Your task to perform on an android device: turn off location Image 0: 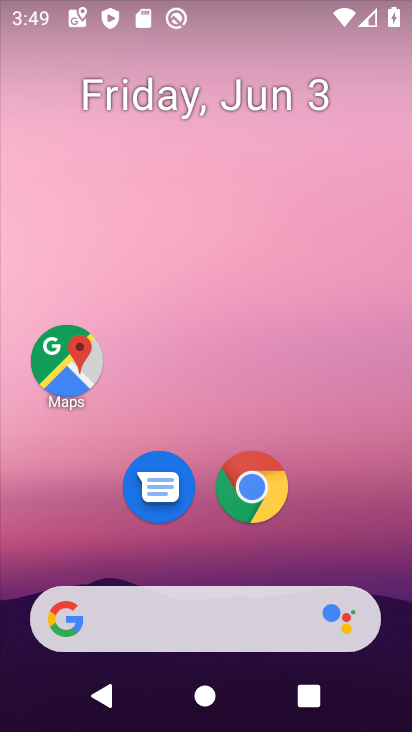
Step 0: click (390, 2)
Your task to perform on an android device: turn off location Image 1: 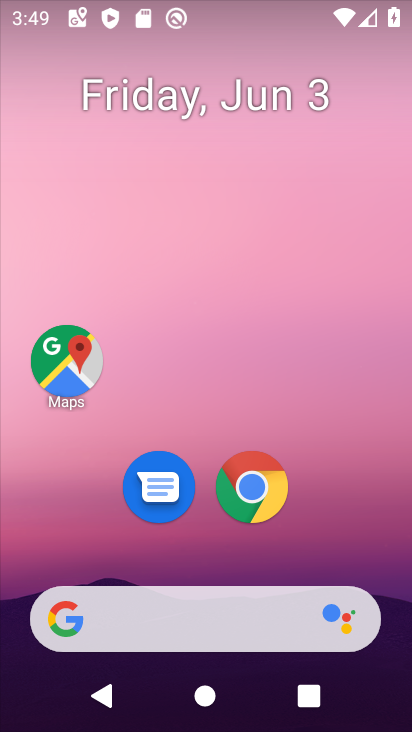
Step 1: drag from (199, 568) to (324, 146)
Your task to perform on an android device: turn off location Image 2: 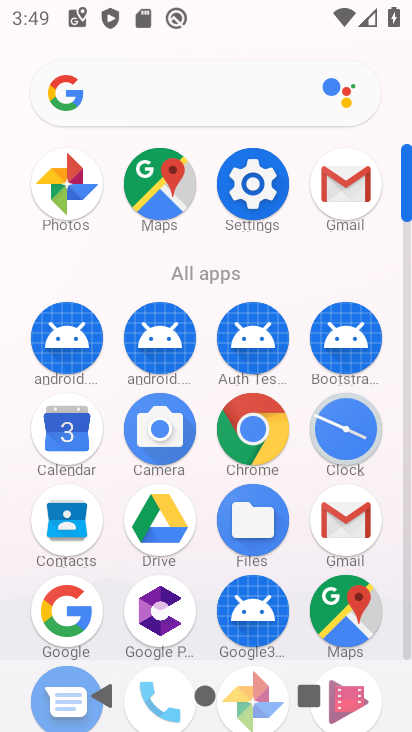
Step 2: click (256, 195)
Your task to perform on an android device: turn off location Image 3: 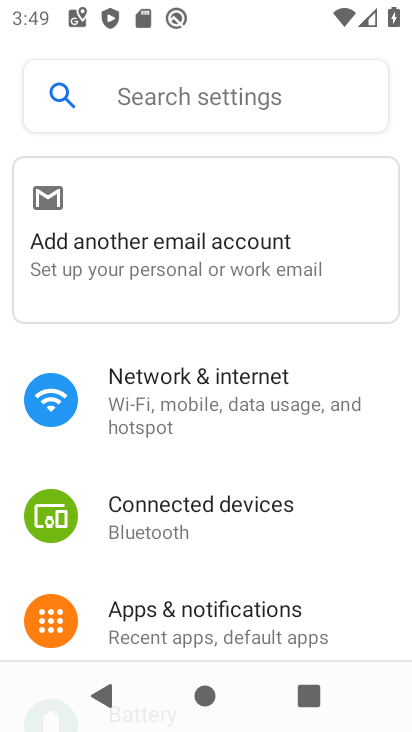
Step 3: click (123, 422)
Your task to perform on an android device: turn off location Image 4: 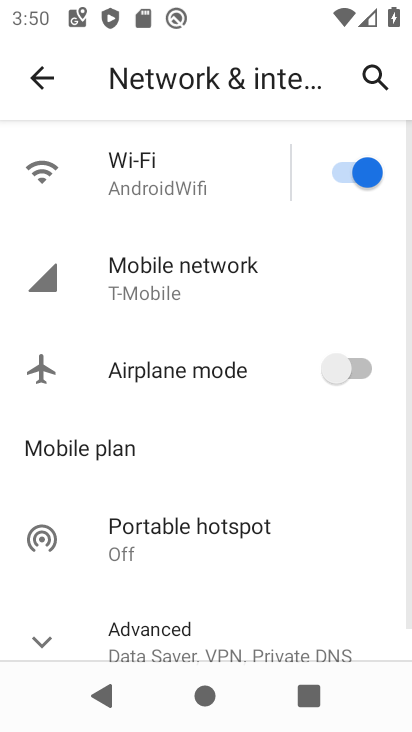
Step 4: click (35, 83)
Your task to perform on an android device: turn off location Image 5: 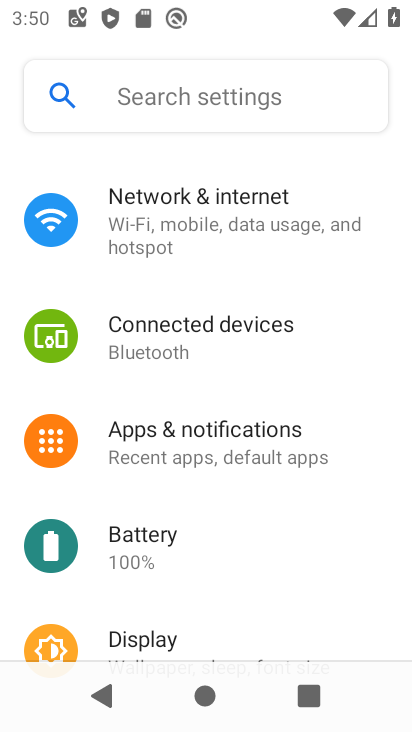
Step 5: drag from (254, 459) to (402, 88)
Your task to perform on an android device: turn off location Image 6: 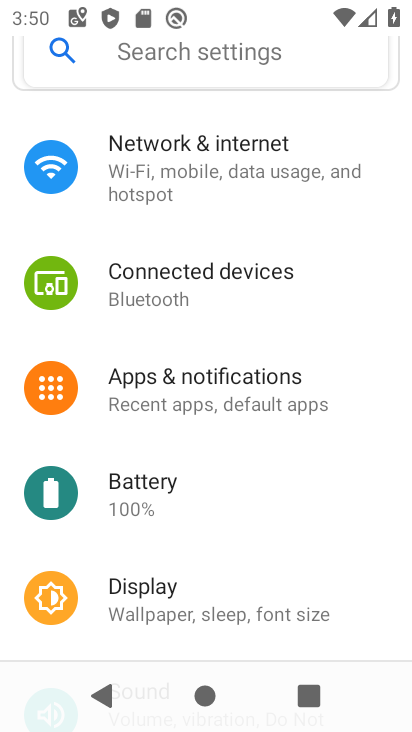
Step 6: drag from (163, 577) to (318, 4)
Your task to perform on an android device: turn off location Image 7: 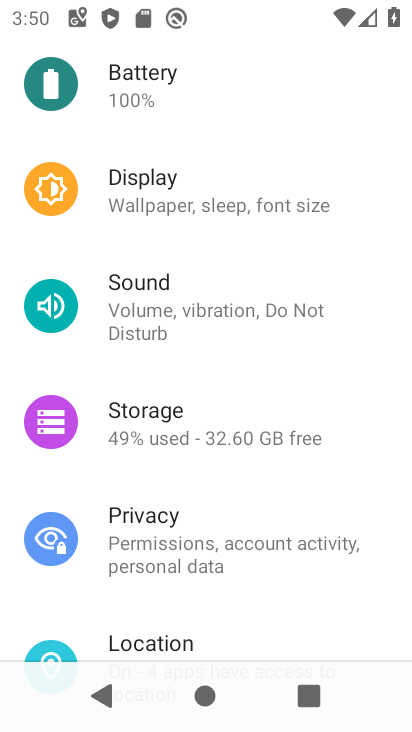
Step 7: drag from (186, 549) to (247, 223)
Your task to perform on an android device: turn off location Image 8: 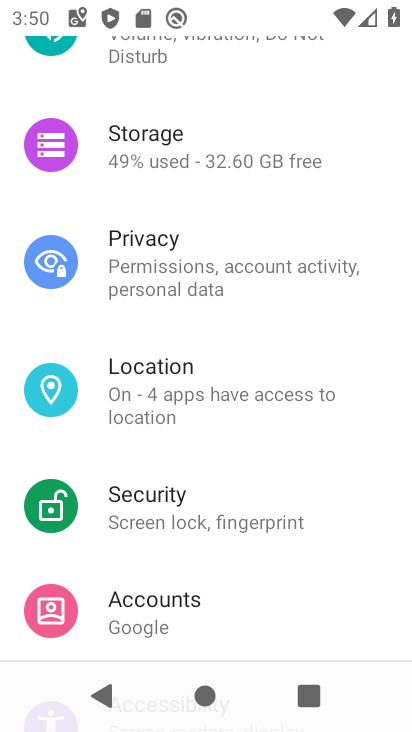
Step 8: click (228, 380)
Your task to perform on an android device: turn off location Image 9: 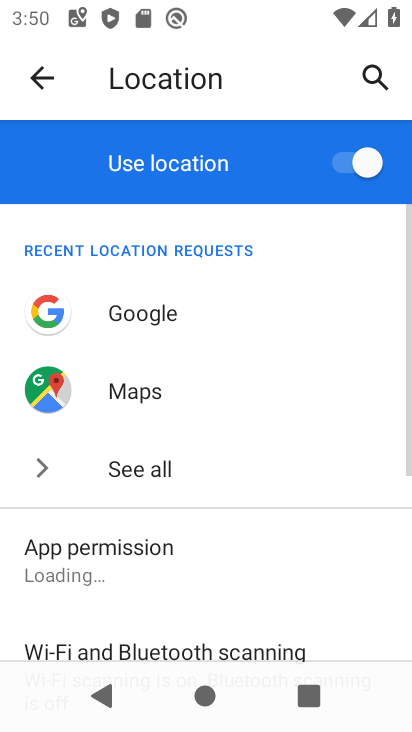
Step 9: drag from (230, 535) to (217, 110)
Your task to perform on an android device: turn off location Image 10: 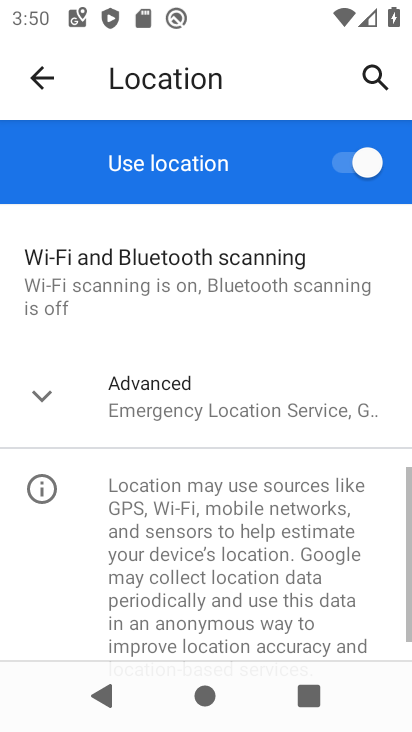
Step 10: drag from (333, 261) to (261, 668)
Your task to perform on an android device: turn off location Image 11: 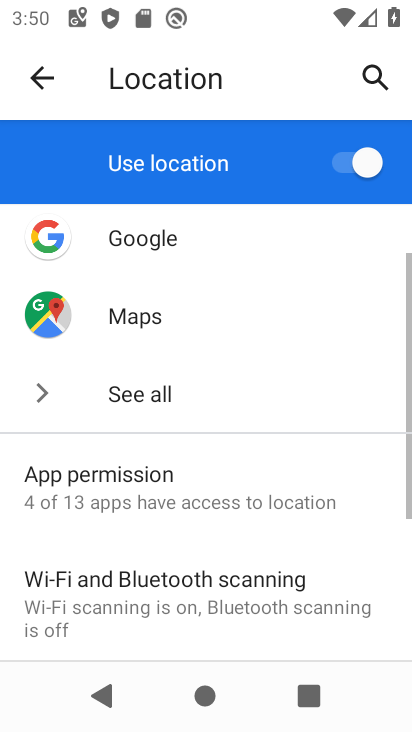
Step 11: click (364, 159)
Your task to perform on an android device: turn off location Image 12: 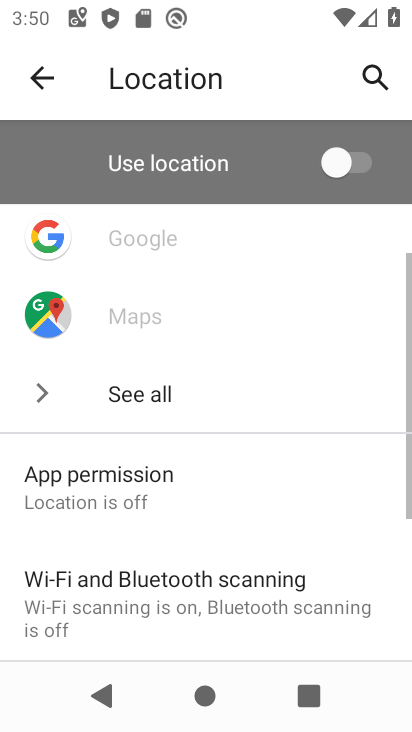
Step 12: task complete